Your task to perform on an android device: toggle sleep mode Image 0: 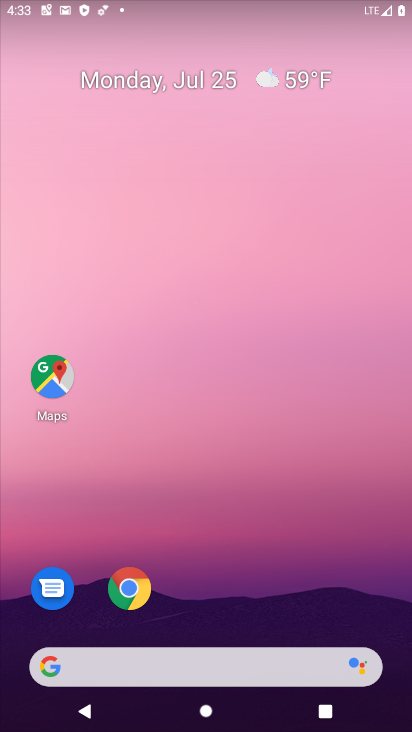
Step 0: drag from (231, 587) to (380, 26)
Your task to perform on an android device: toggle sleep mode Image 1: 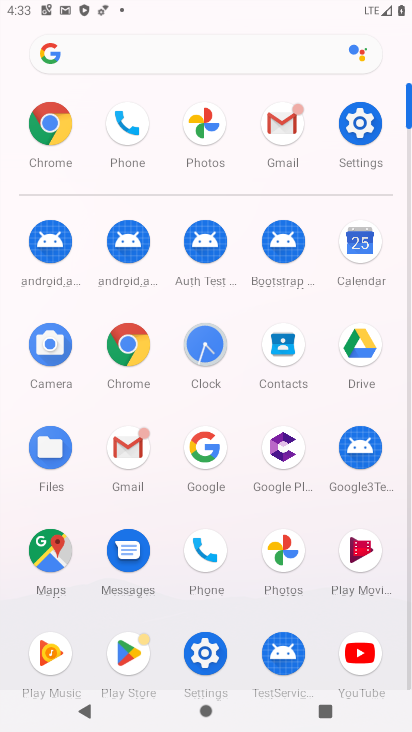
Step 1: click (210, 645)
Your task to perform on an android device: toggle sleep mode Image 2: 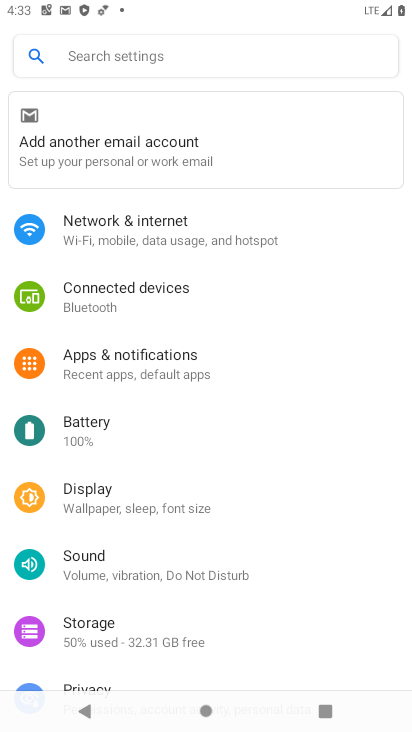
Step 2: drag from (117, 598) to (194, 129)
Your task to perform on an android device: toggle sleep mode Image 3: 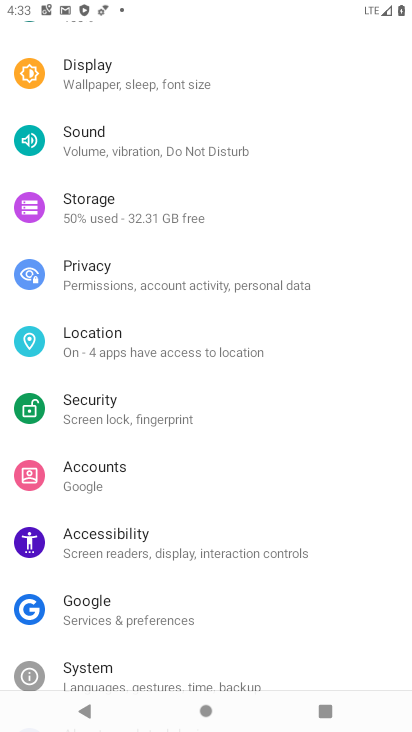
Step 3: drag from (102, 223) to (43, 561)
Your task to perform on an android device: toggle sleep mode Image 4: 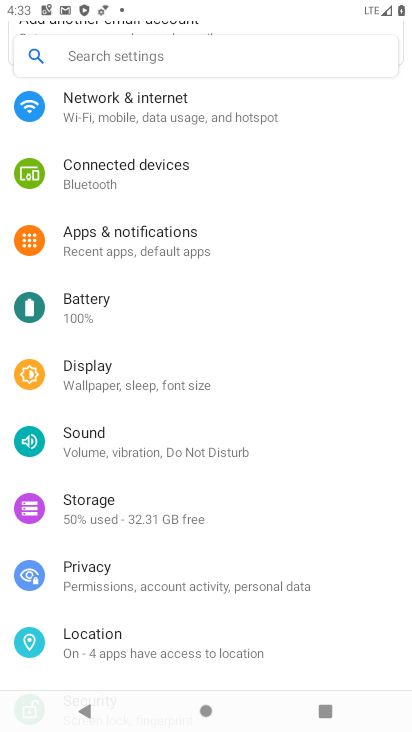
Step 4: drag from (160, 197) to (110, 518)
Your task to perform on an android device: toggle sleep mode Image 5: 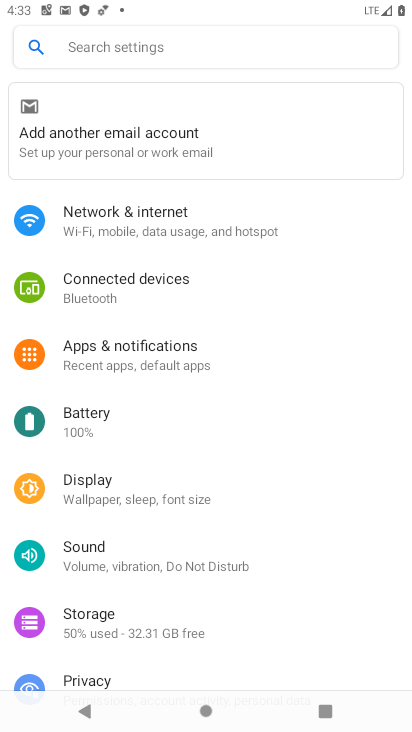
Step 5: click (88, 465)
Your task to perform on an android device: toggle sleep mode Image 6: 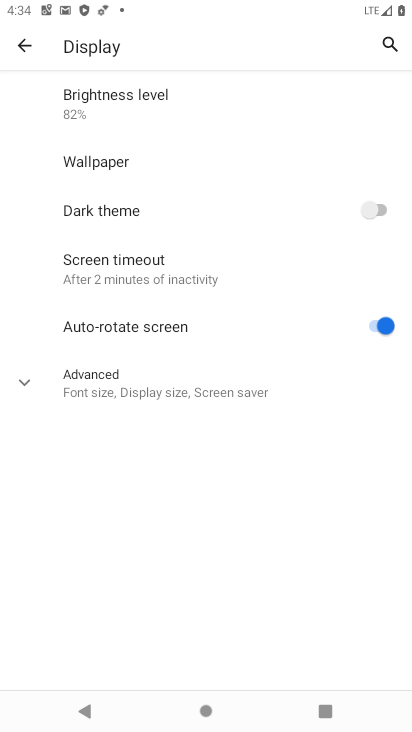
Step 6: click (88, 253)
Your task to perform on an android device: toggle sleep mode Image 7: 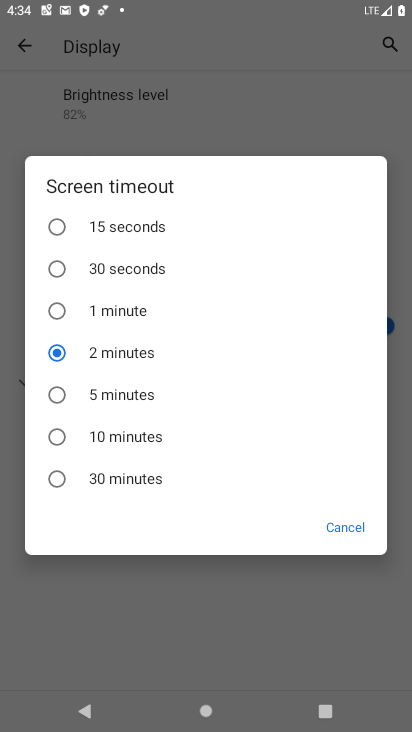
Step 7: click (109, 262)
Your task to perform on an android device: toggle sleep mode Image 8: 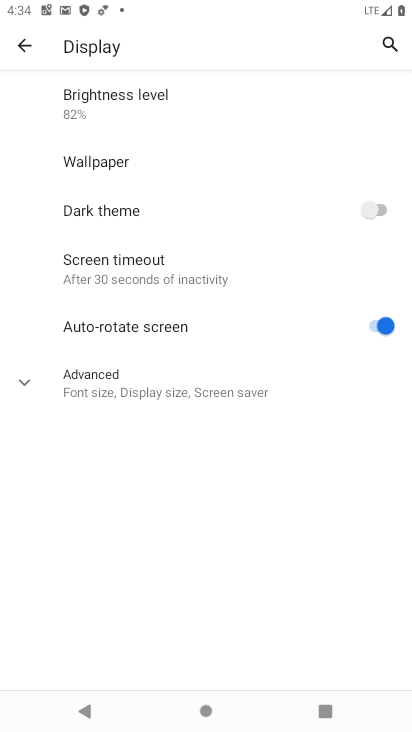
Step 8: task complete